Your task to perform on an android device: change your default location settings in chrome Image 0: 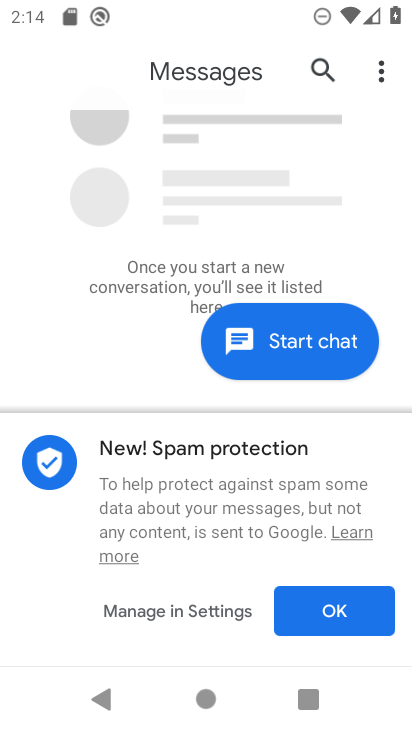
Step 0: press home button
Your task to perform on an android device: change your default location settings in chrome Image 1: 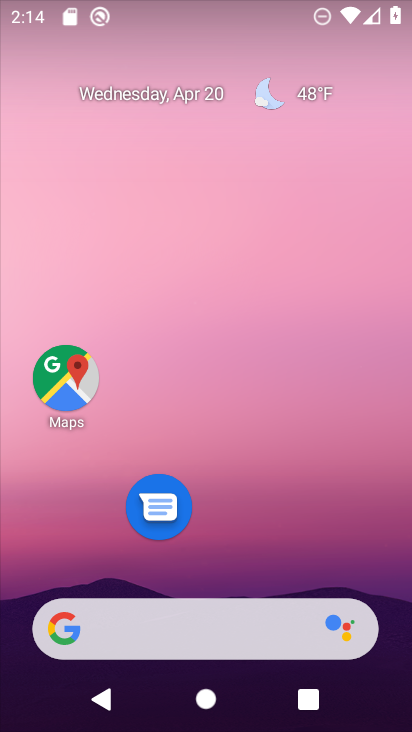
Step 1: drag from (207, 727) to (163, 43)
Your task to perform on an android device: change your default location settings in chrome Image 2: 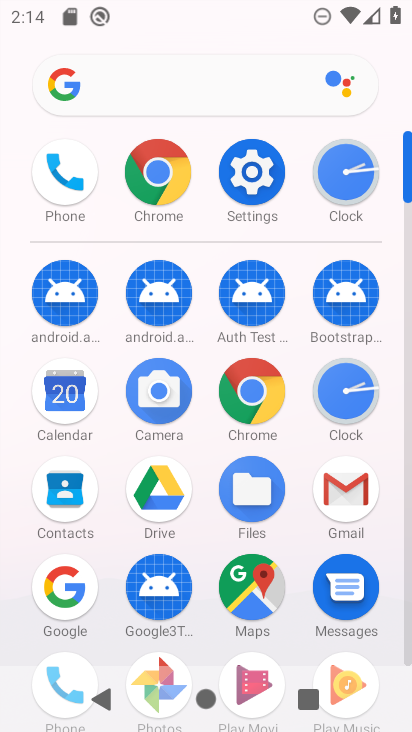
Step 2: click (159, 175)
Your task to perform on an android device: change your default location settings in chrome Image 3: 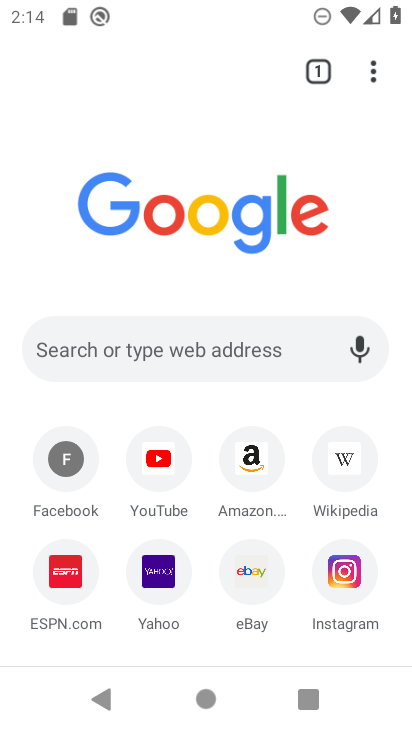
Step 3: click (371, 77)
Your task to perform on an android device: change your default location settings in chrome Image 4: 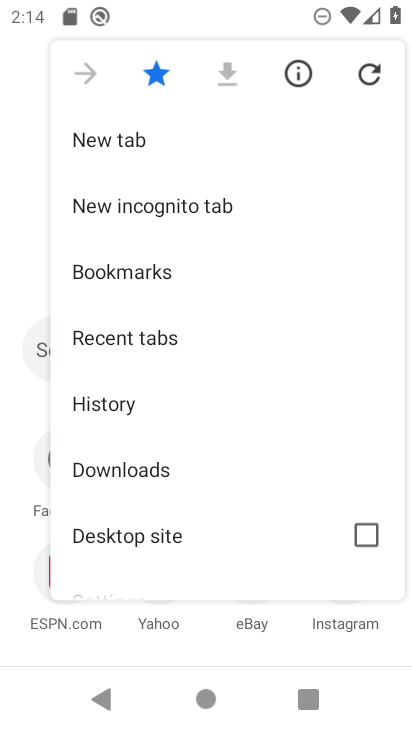
Step 4: drag from (138, 556) to (138, 191)
Your task to perform on an android device: change your default location settings in chrome Image 5: 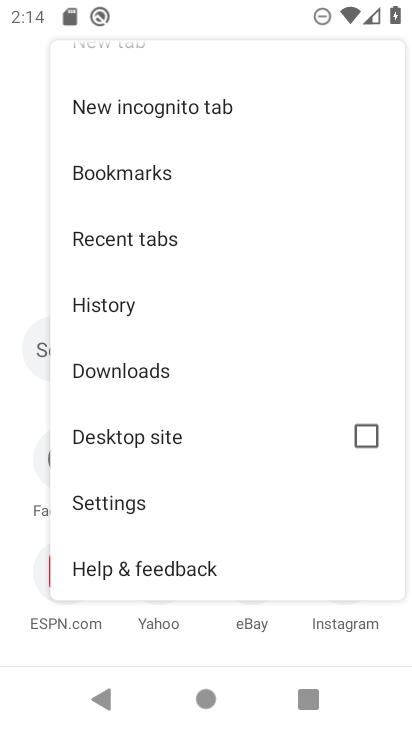
Step 5: click (110, 502)
Your task to perform on an android device: change your default location settings in chrome Image 6: 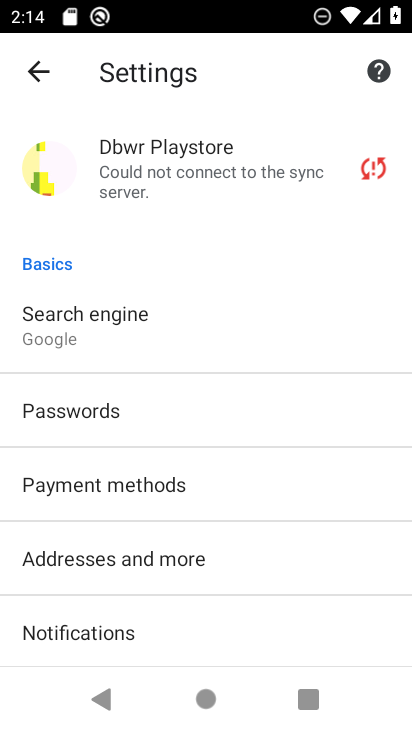
Step 6: drag from (178, 607) to (167, 338)
Your task to perform on an android device: change your default location settings in chrome Image 7: 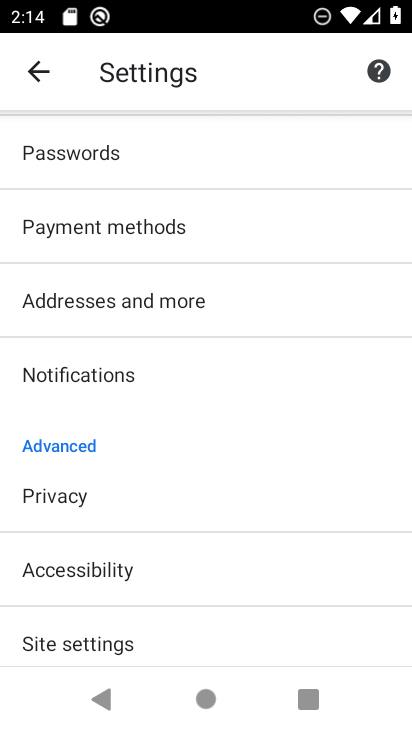
Step 7: drag from (161, 603) to (168, 356)
Your task to perform on an android device: change your default location settings in chrome Image 8: 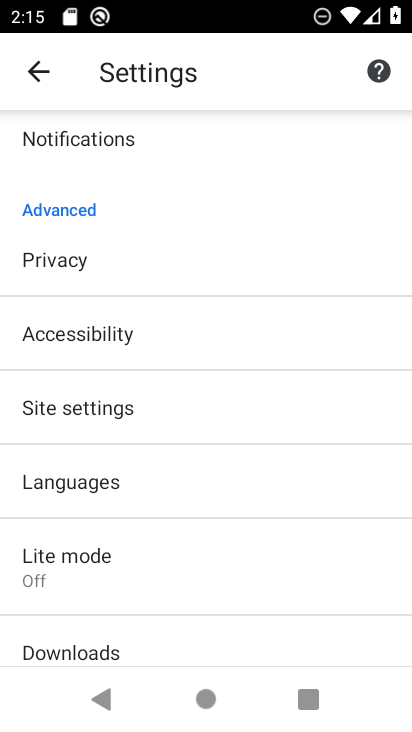
Step 8: click (65, 407)
Your task to perform on an android device: change your default location settings in chrome Image 9: 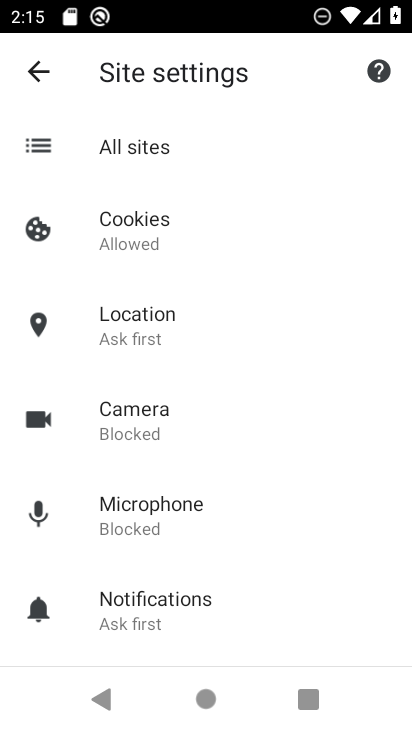
Step 9: drag from (158, 577) to (147, 424)
Your task to perform on an android device: change your default location settings in chrome Image 10: 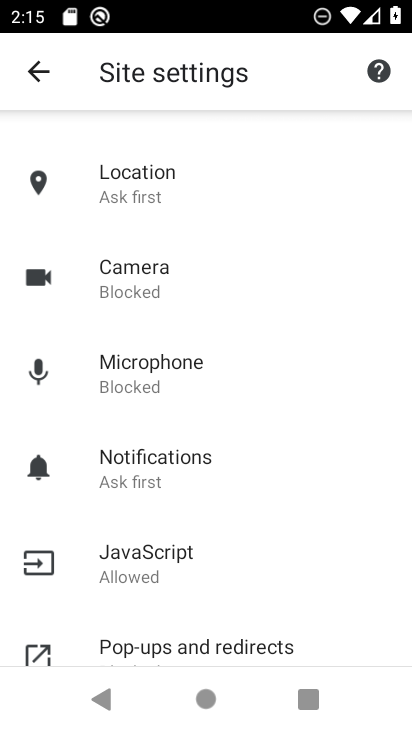
Step 10: click (131, 185)
Your task to perform on an android device: change your default location settings in chrome Image 11: 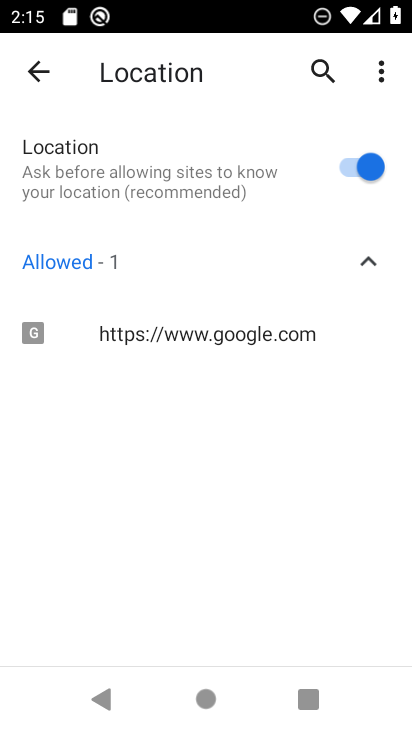
Step 11: click (349, 169)
Your task to perform on an android device: change your default location settings in chrome Image 12: 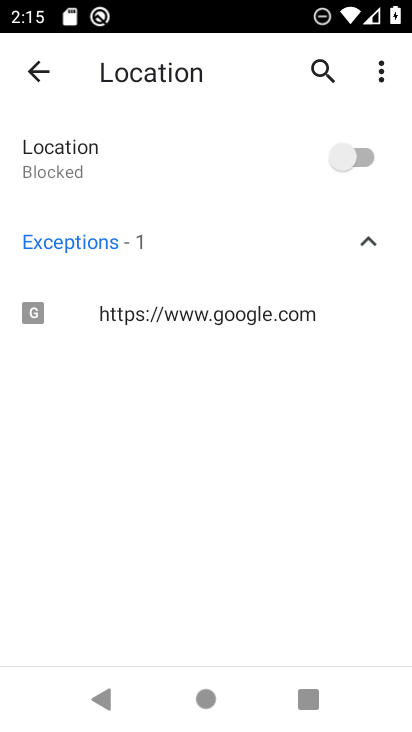
Step 12: task complete